Your task to perform on an android device: What's the weather today? Image 0: 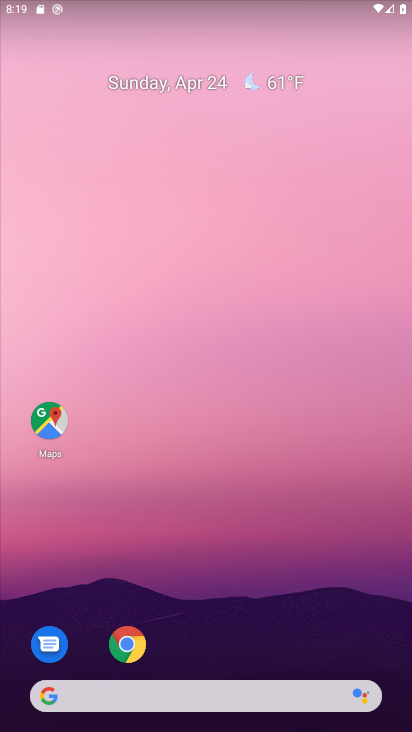
Step 0: drag from (221, 667) to (205, 21)
Your task to perform on an android device: What's the weather today? Image 1: 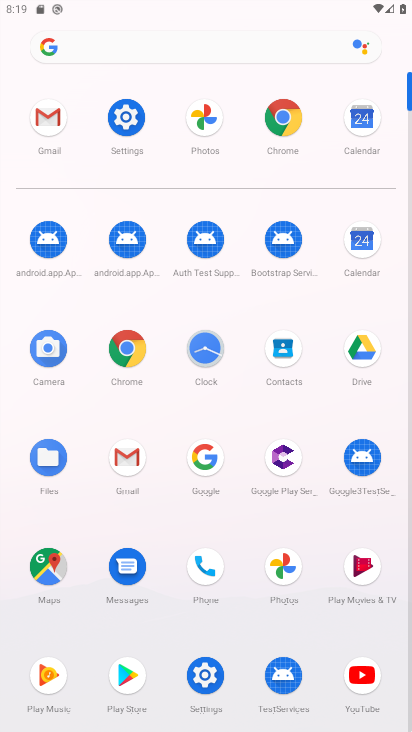
Step 1: press back button
Your task to perform on an android device: What's the weather today? Image 2: 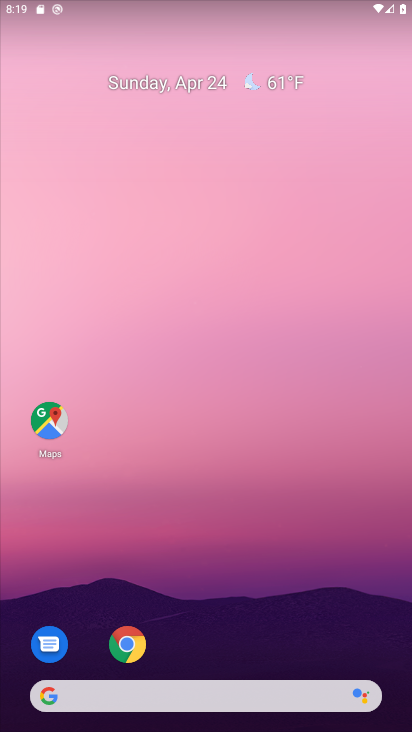
Step 2: click (271, 77)
Your task to perform on an android device: What's the weather today? Image 3: 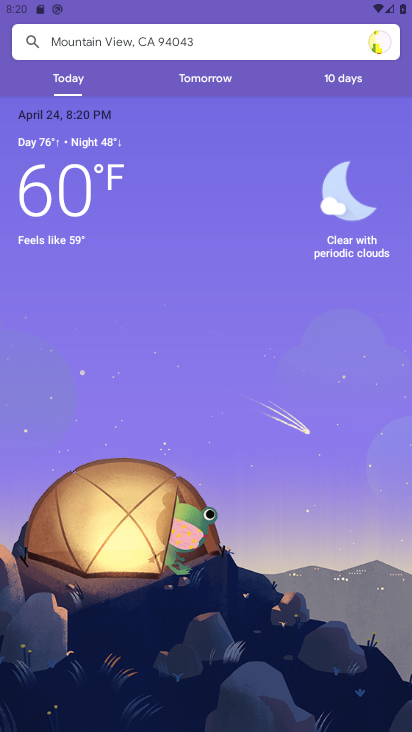
Step 3: task complete